Your task to perform on an android device: see sites visited before in the chrome app Image 0: 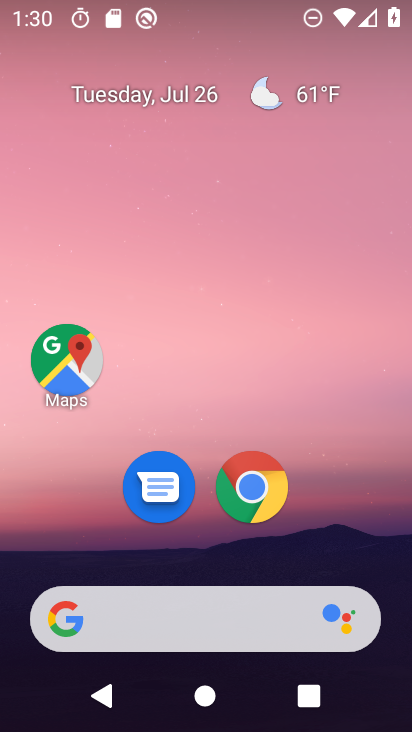
Step 0: click (268, 496)
Your task to perform on an android device: see sites visited before in the chrome app Image 1: 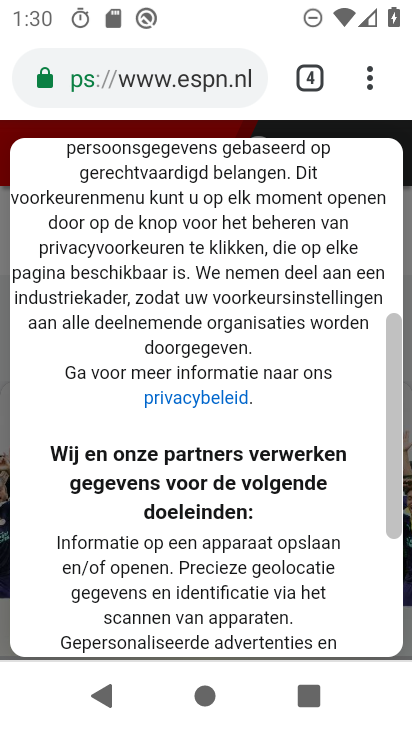
Step 1: task complete